Your task to perform on an android device: Search for Mexican restaurants on Maps Image 0: 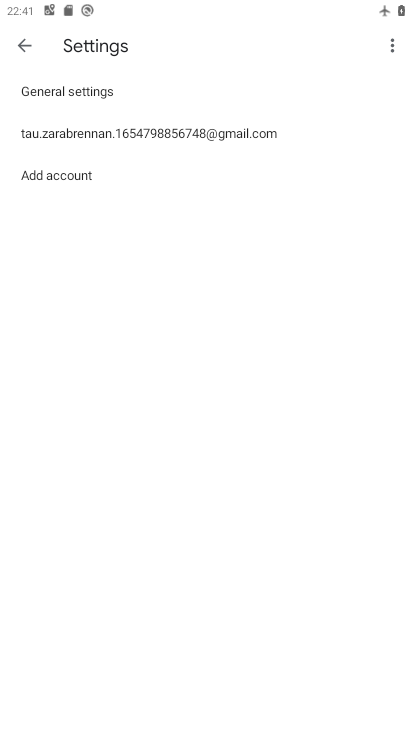
Step 0: press home button
Your task to perform on an android device: Search for Mexican restaurants on Maps Image 1: 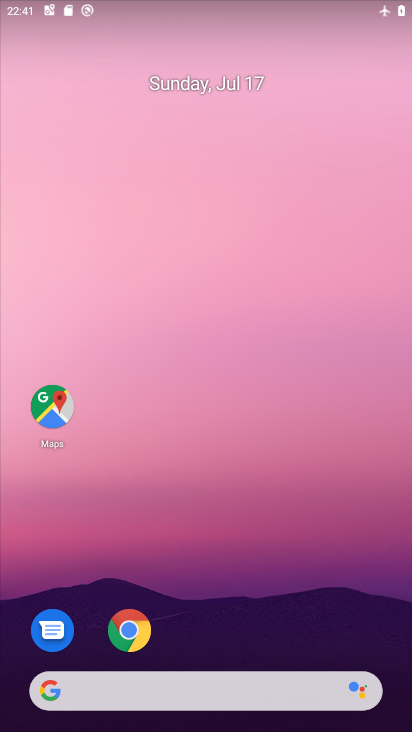
Step 1: click (63, 396)
Your task to perform on an android device: Search for Mexican restaurants on Maps Image 2: 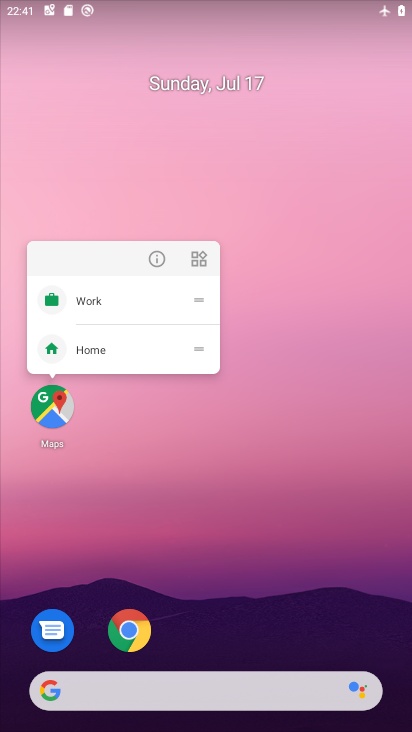
Step 2: click (56, 418)
Your task to perform on an android device: Search for Mexican restaurants on Maps Image 3: 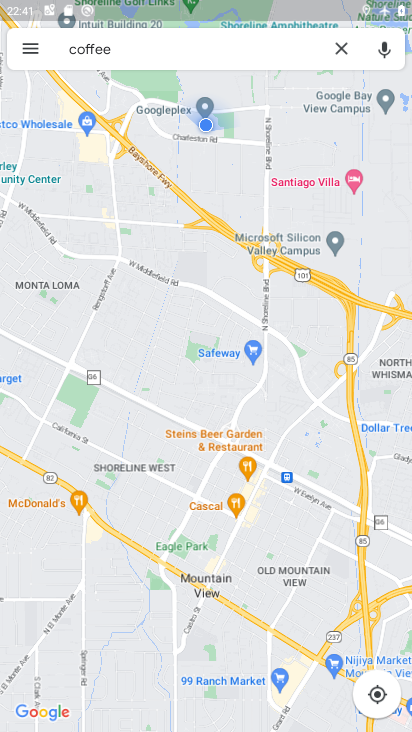
Step 3: click (334, 47)
Your task to perform on an android device: Search for Mexican restaurants on Maps Image 4: 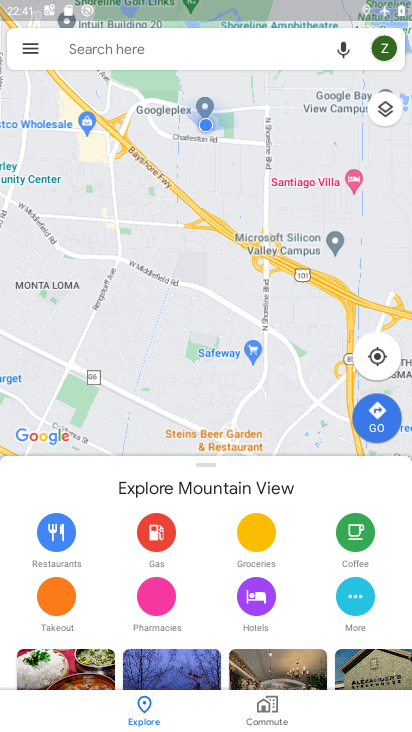
Step 4: click (216, 61)
Your task to perform on an android device: Search for Mexican restaurants on Maps Image 5: 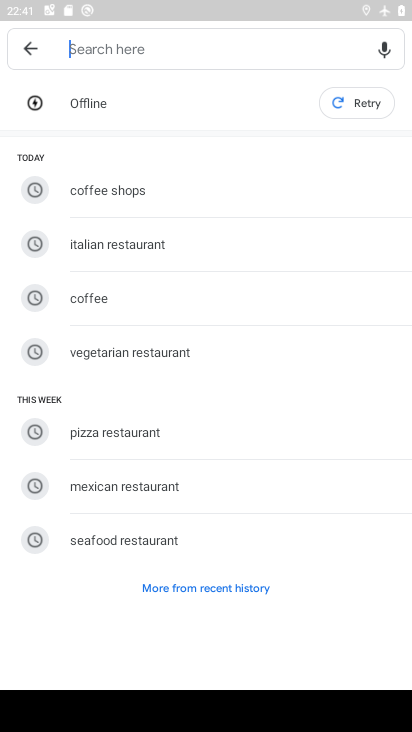
Step 5: type "Mexican restaurants"
Your task to perform on an android device: Search for Mexican restaurants on Maps Image 6: 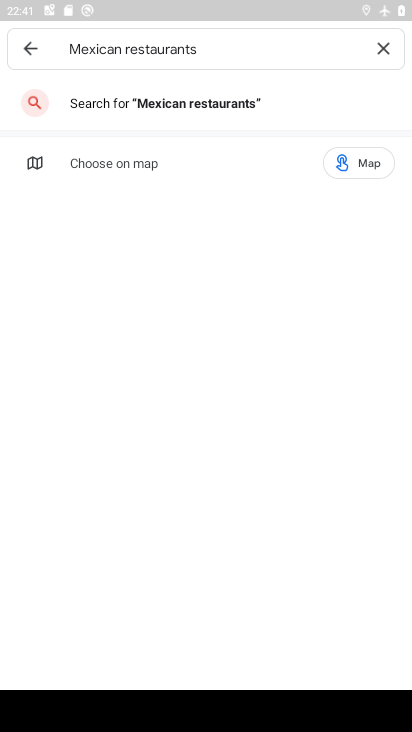
Step 6: click (206, 109)
Your task to perform on an android device: Search for Mexican restaurants on Maps Image 7: 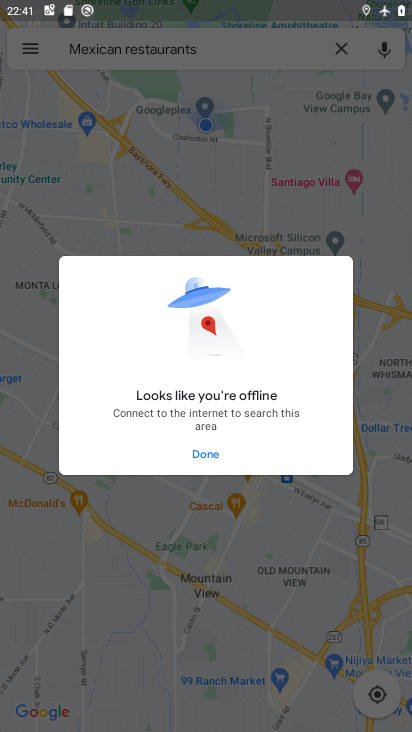
Step 7: click (208, 457)
Your task to perform on an android device: Search for Mexican restaurants on Maps Image 8: 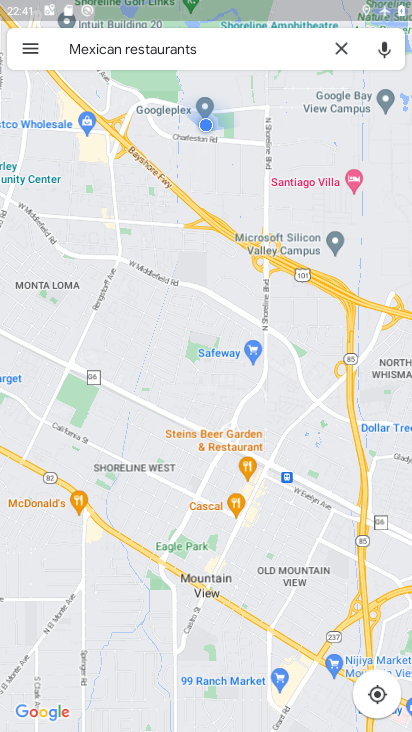
Step 8: drag from (319, 19) to (313, 549)
Your task to perform on an android device: Search for Mexican restaurants on Maps Image 9: 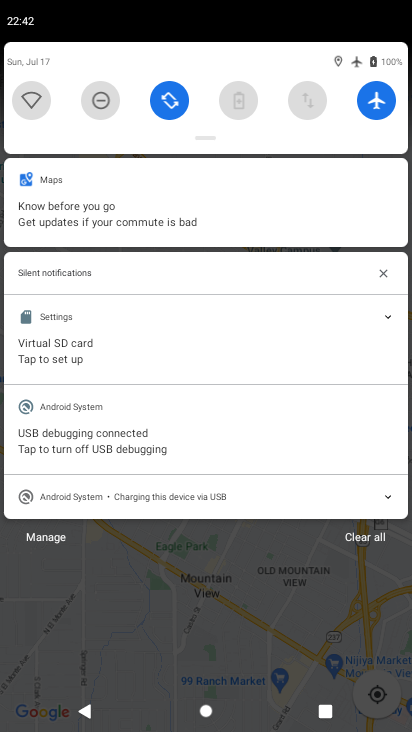
Step 9: click (375, 101)
Your task to perform on an android device: Search for Mexican restaurants on Maps Image 10: 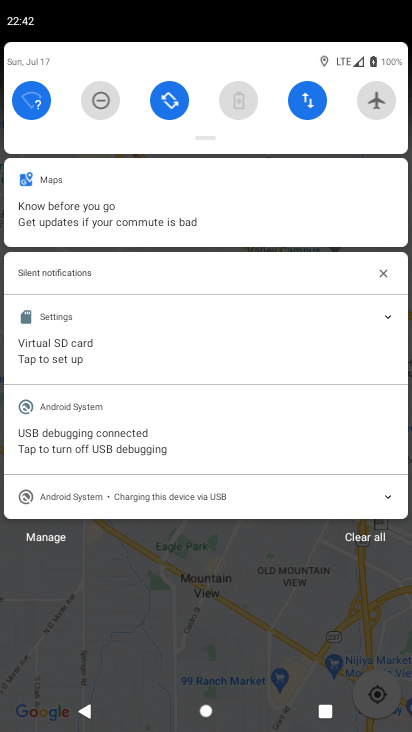
Step 10: task complete